Your task to perform on an android device: clear all cookies in the chrome app Image 0: 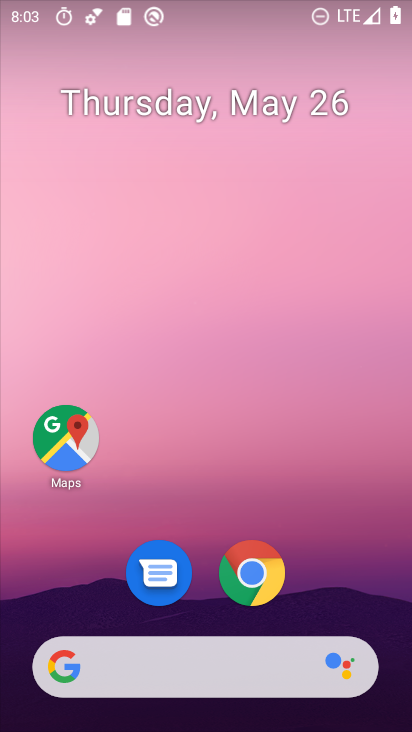
Step 0: drag from (330, 523) to (172, 44)
Your task to perform on an android device: clear all cookies in the chrome app Image 1: 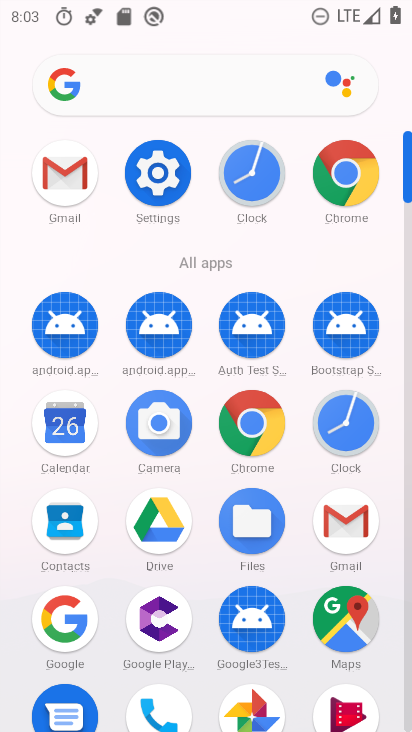
Step 1: drag from (18, 548) to (0, 257)
Your task to perform on an android device: clear all cookies in the chrome app Image 2: 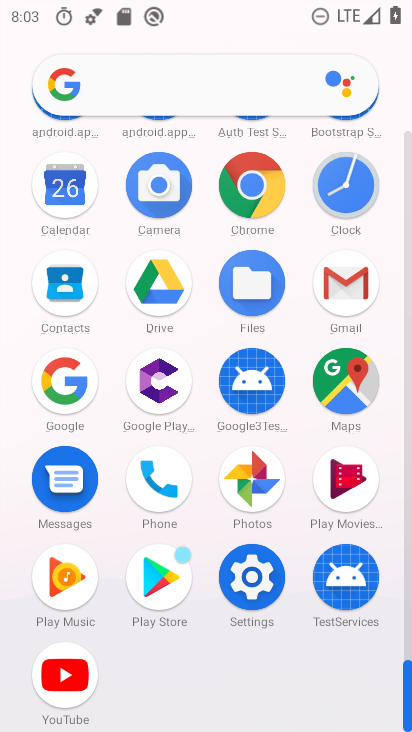
Step 2: click (252, 183)
Your task to perform on an android device: clear all cookies in the chrome app Image 3: 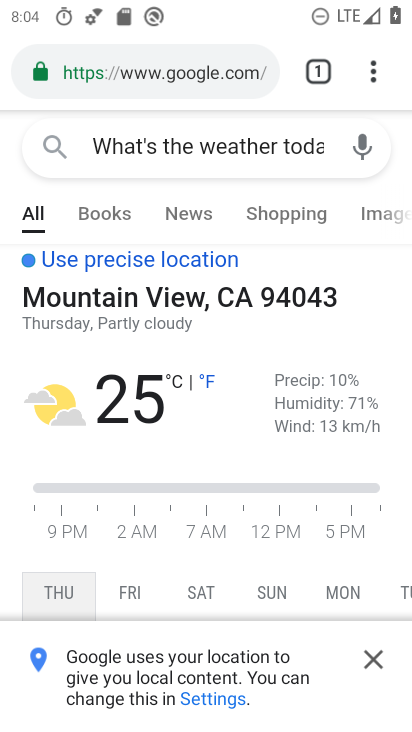
Step 3: drag from (368, 71) to (150, 555)
Your task to perform on an android device: clear all cookies in the chrome app Image 4: 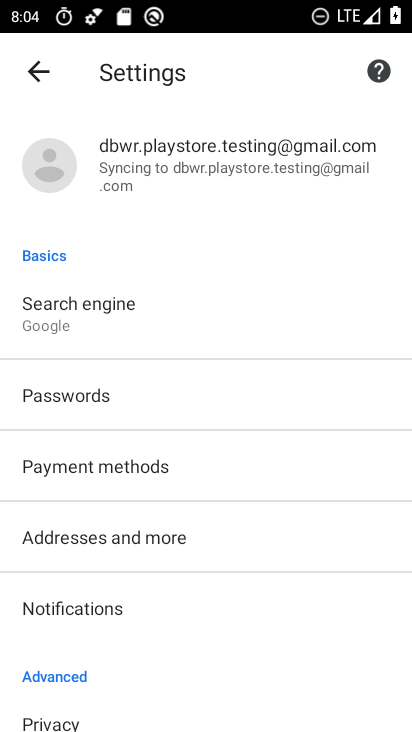
Step 4: drag from (178, 603) to (212, 308)
Your task to perform on an android device: clear all cookies in the chrome app Image 5: 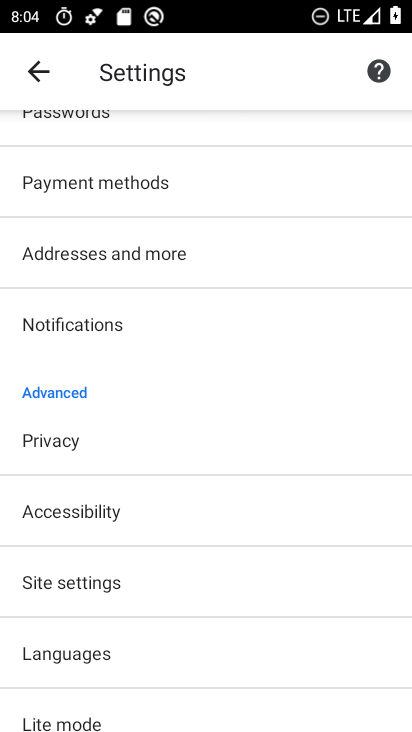
Step 5: drag from (220, 543) to (253, 237)
Your task to perform on an android device: clear all cookies in the chrome app Image 6: 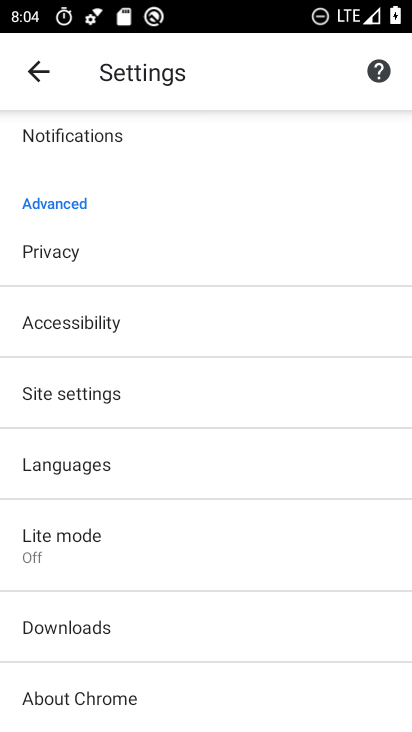
Step 6: drag from (271, 228) to (304, 616)
Your task to perform on an android device: clear all cookies in the chrome app Image 7: 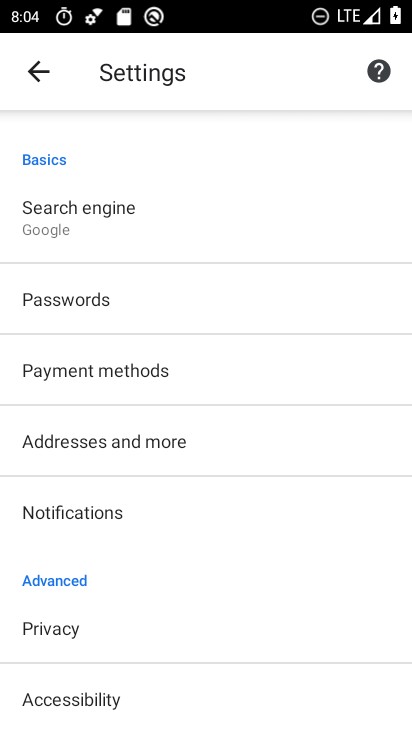
Step 7: drag from (280, 303) to (281, 562)
Your task to perform on an android device: clear all cookies in the chrome app Image 8: 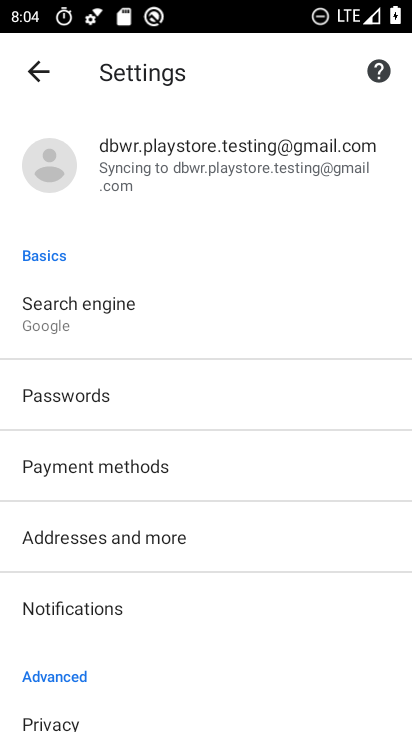
Step 8: drag from (281, 562) to (294, 221)
Your task to perform on an android device: clear all cookies in the chrome app Image 9: 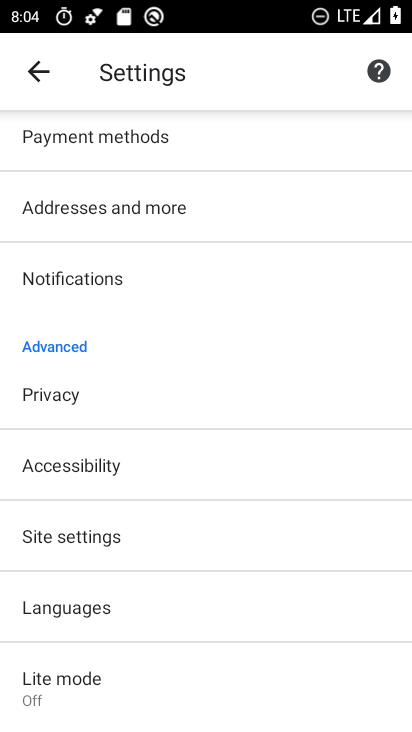
Step 9: click (115, 398)
Your task to perform on an android device: clear all cookies in the chrome app Image 10: 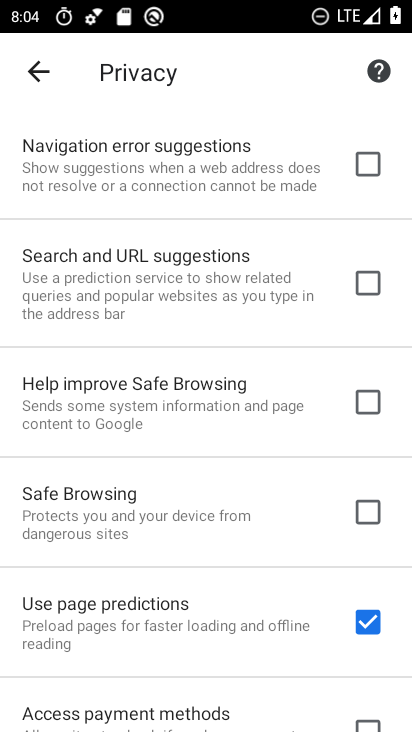
Step 10: drag from (210, 634) to (259, 152)
Your task to perform on an android device: clear all cookies in the chrome app Image 11: 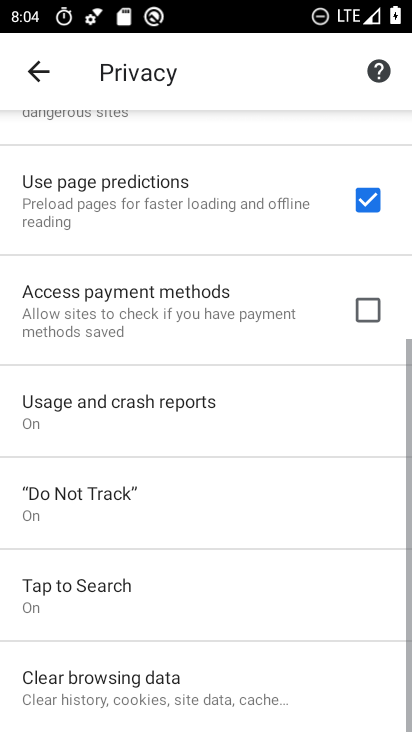
Step 11: click (168, 688)
Your task to perform on an android device: clear all cookies in the chrome app Image 12: 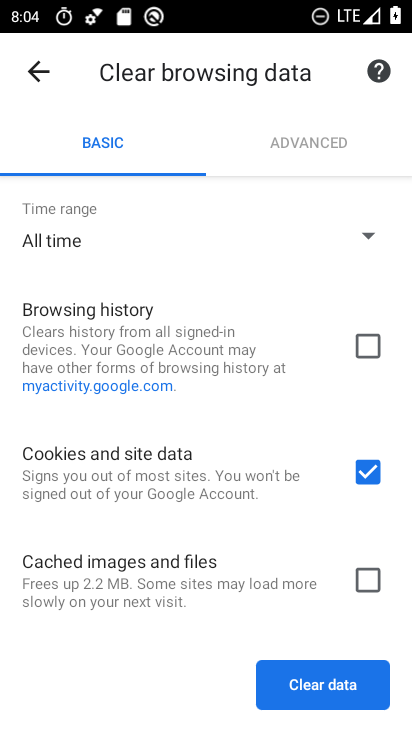
Step 12: click (321, 683)
Your task to perform on an android device: clear all cookies in the chrome app Image 13: 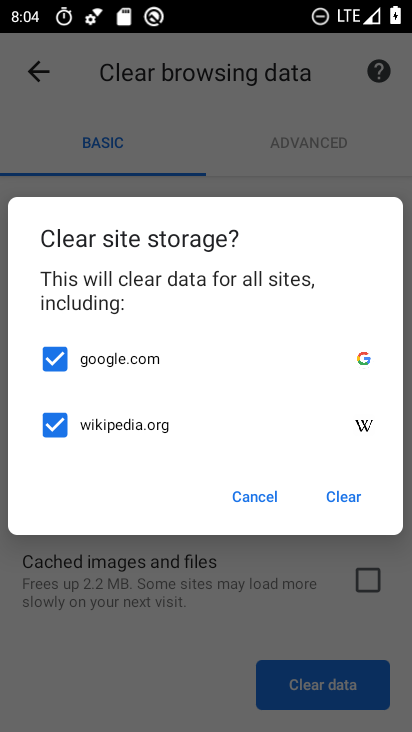
Step 13: click (350, 493)
Your task to perform on an android device: clear all cookies in the chrome app Image 14: 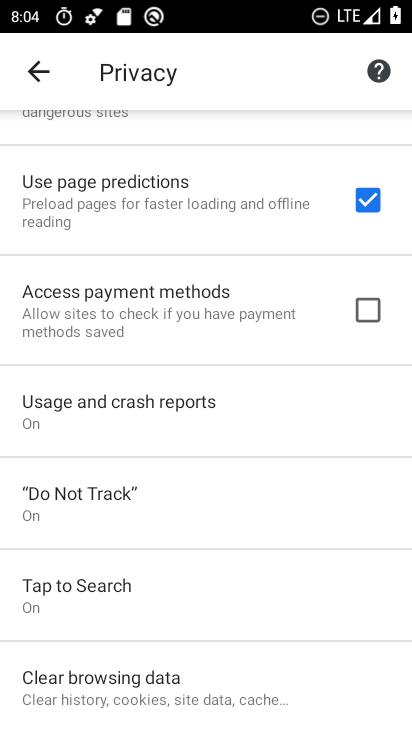
Step 14: task complete